Your task to perform on an android device: turn on translation in the chrome app Image 0: 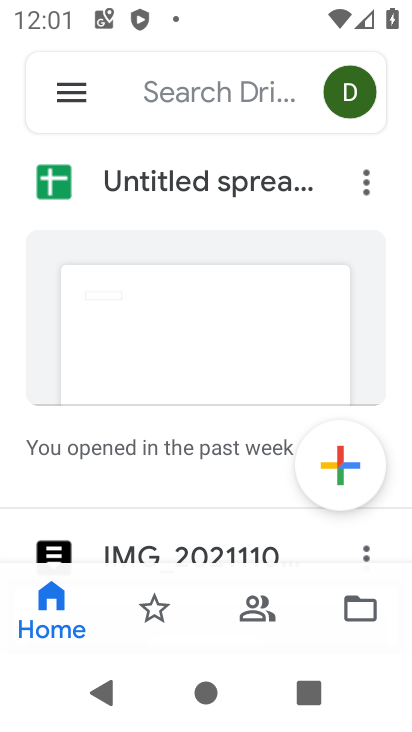
Step 0: press home button
Your task to perform on an android device: turn on translation in the chrome app Image 1: 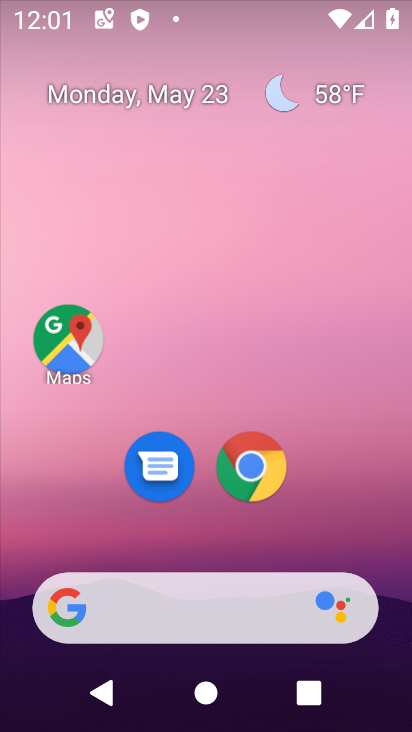
Step 1: click (248, 462)
Your task to perform on an android device: turn on translation in the chrome app Image 2: 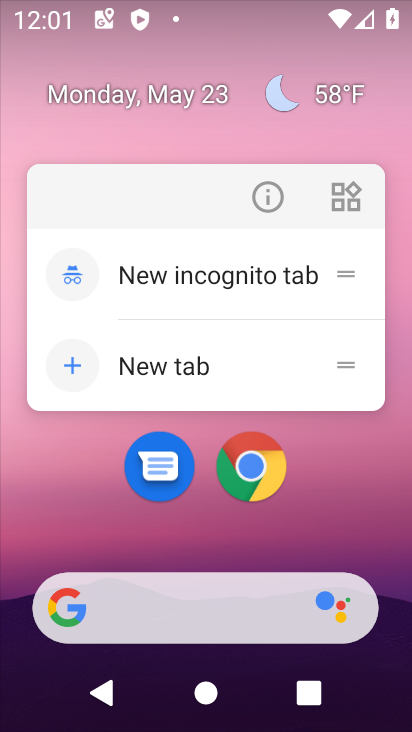
Step 2: click (248, 462)
Your task to perform on an android device: turn on translation in the chrome app Image 3: 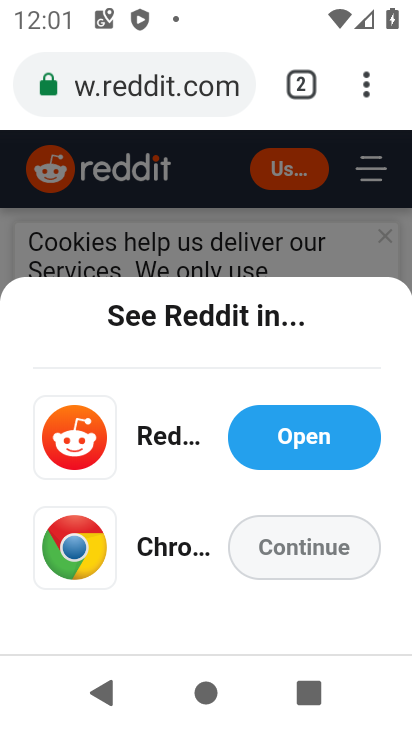
Step 3: click (358, 86)
Your task to perform on an android device: turn on translation in the chrome app Image 4: 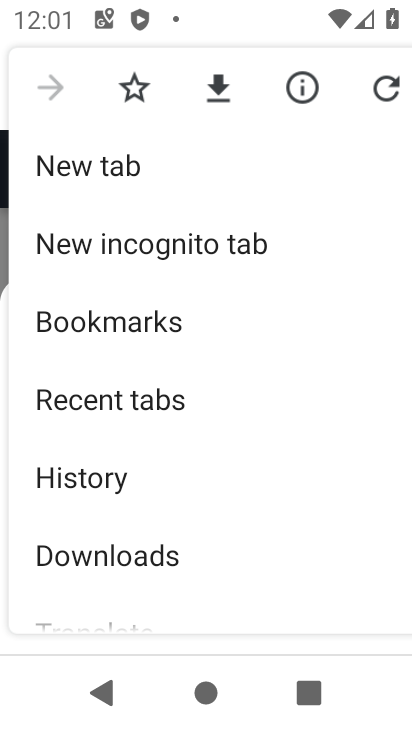
Step 4: drag from (244, 544) to (237, 44)
Your task to perform on an android device: turn on translation in the chrome app Image 5: 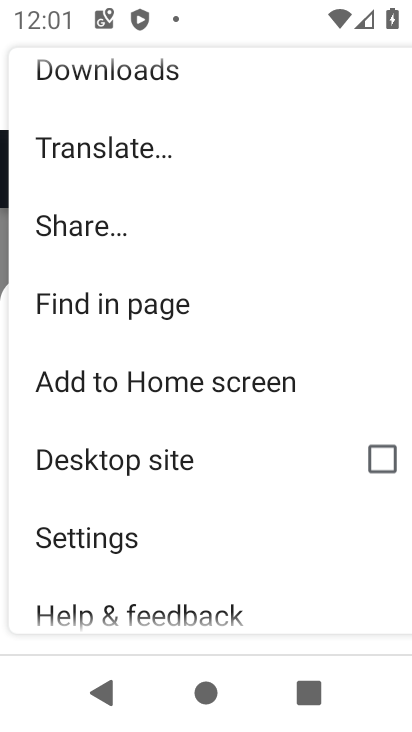
Step 5: click (84, 541)
Your task to perform on an android device: turn on translation in the chrome app Image 6: 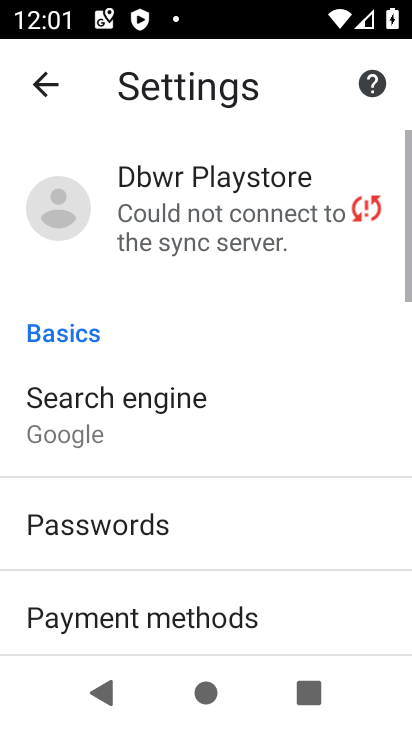
Step 6: drag from (239, 531) to (255, 80)
Your task to perform on an android device: turn on translation in the chrome app Image 7: 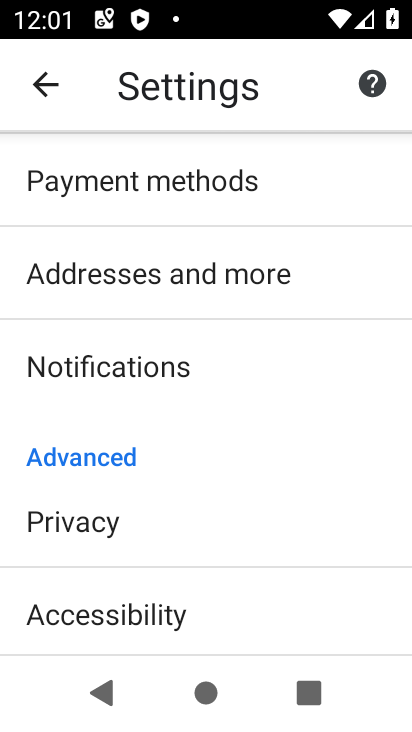
Step 7: drag from (190, 532) to (228, 156)
Your task to perform on an android device: turn on translation in the chrome app Image 8: 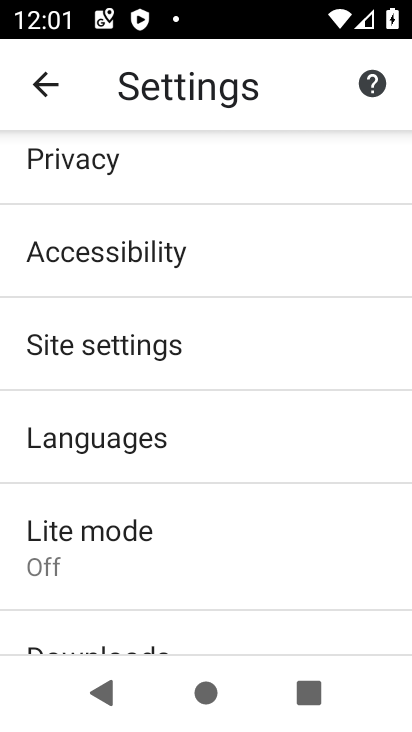
Step 8: click (69, 444)
Your task to perform on an android device: turn on translation in the chrome app Image 9: 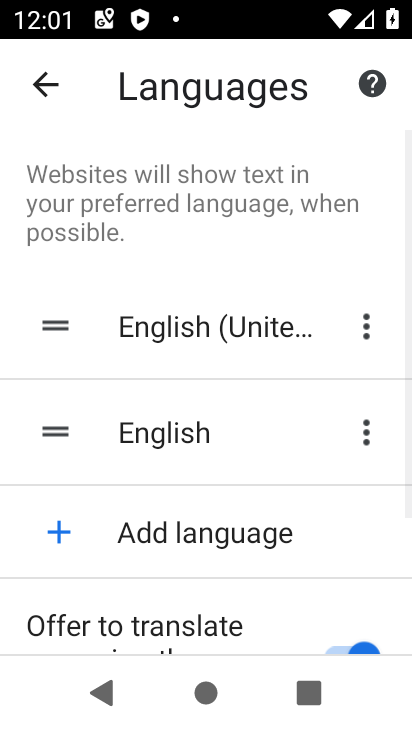
Step 9: task complete